Your task to perform on an android device: Open Google Chrome Image 0: 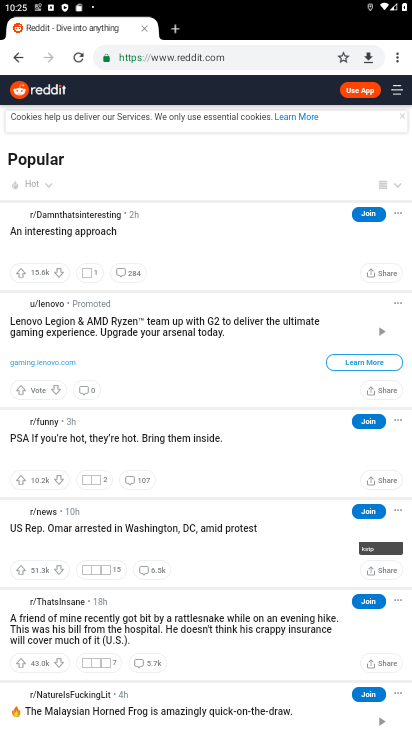
Step 0: drag from (98, 624) to (88, 90)
Your task to perform on an android device: Open Google Chrome Image 1: 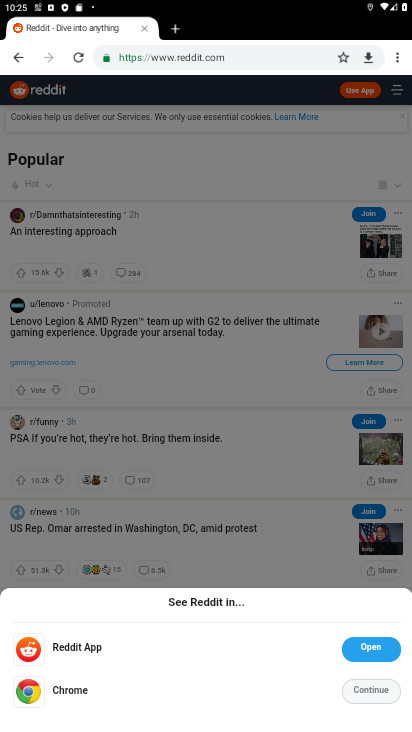
Step 1: task complete